Your task to perform on an android device: Open Yahoo.com Image 0: 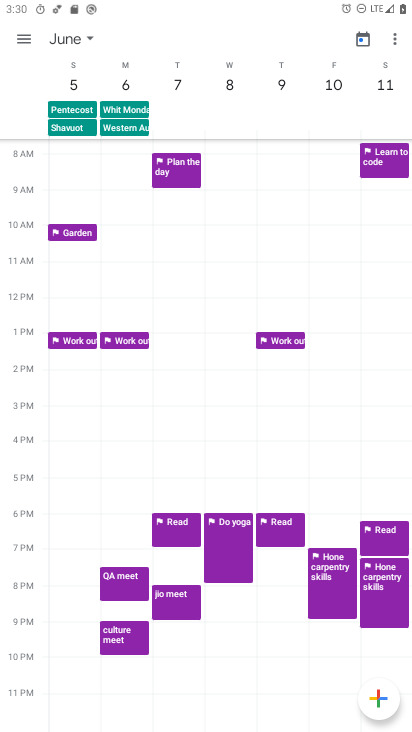
Step 0: press back button
Your task to perform on an android device: Open Yahoo.com Image 1: 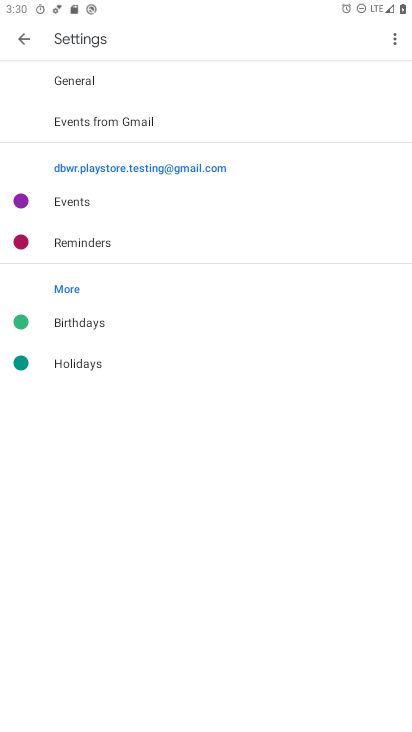
Step 1: press back button
Your task to perform on an android device: Open Yahoo.com Image 2: 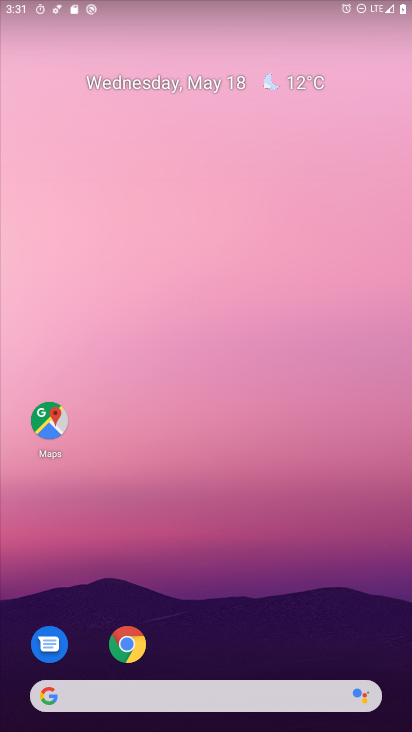
Step 2: click (121, 643)
Your task to perform on an android device: Open Yahoo.com Image 3: 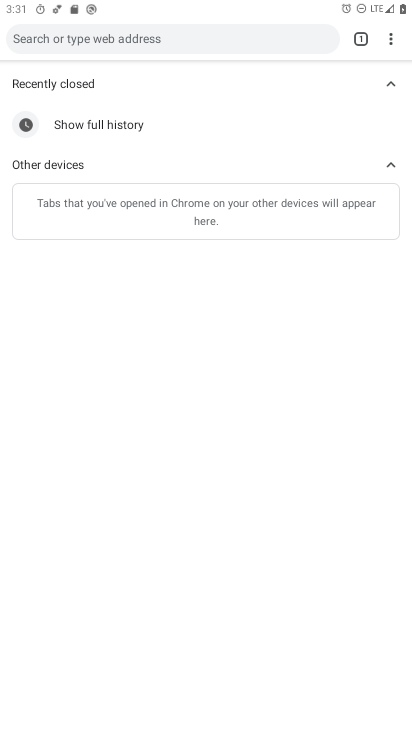
Step 3: click (260, 38)
Your task to perform on an android device: Open Yahoo.com Image 4: 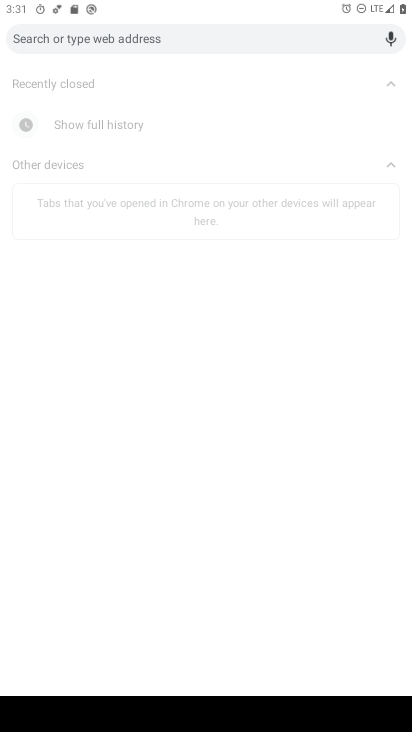
Step 4: type "Yahoo.com"
Your task to perform on an android device: Open Yahoo.com Image 5: 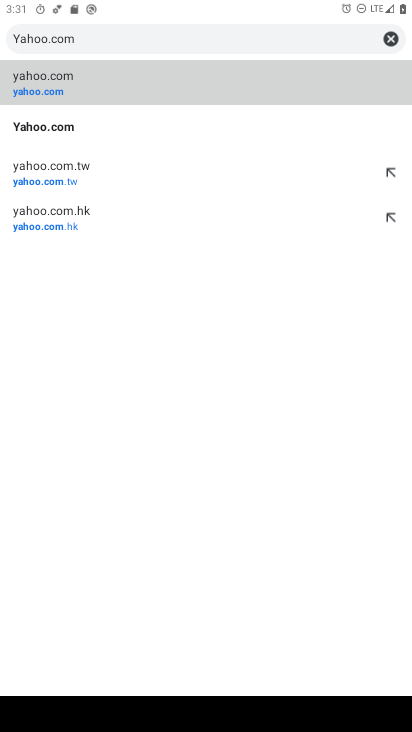
Step 5: click (30, 120)
Your task to perform on an android device: Open Yahoo.com Image 6: 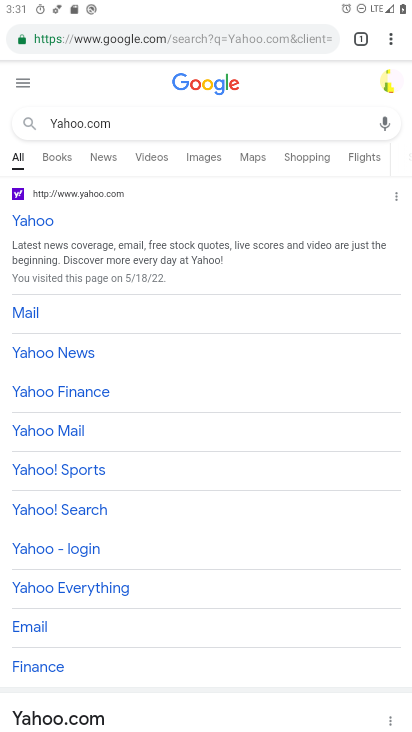
Step 6: task complete